Your task to perform on an android device: change keyboard looks Image 0: 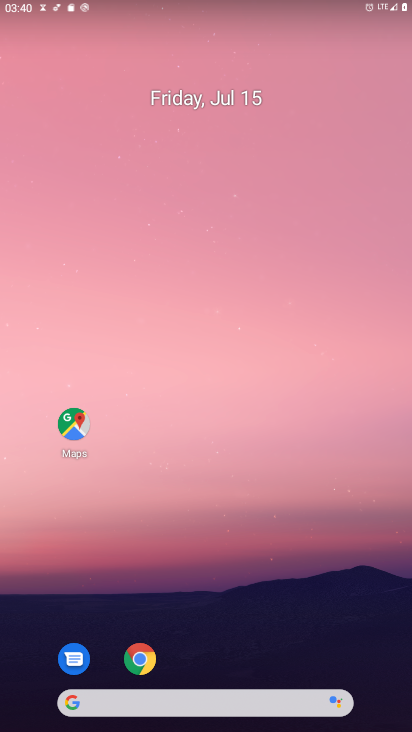
Step 0: drag from (273, 677) to (273, 324)
Your task to perform on an android device: change keyboard looks Image 1: 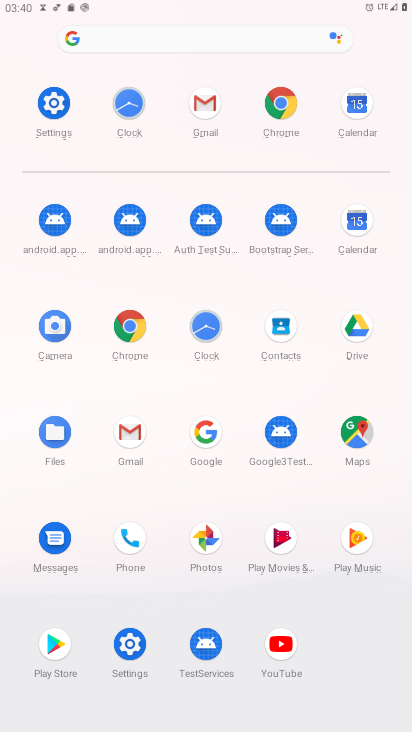
Step 1: click (48, 107)
Your task to perform on an android device: change keyboard looks Image 2: 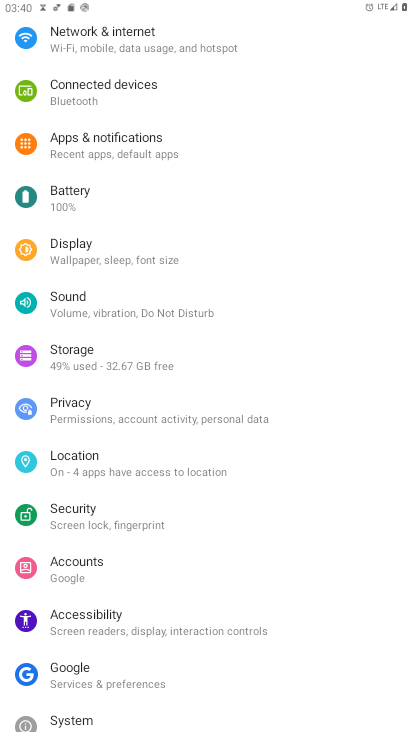
Step 2: drag from (165, 650) to (220, 341)
Your task to perform on an android device: change keyboard looks Image 3: 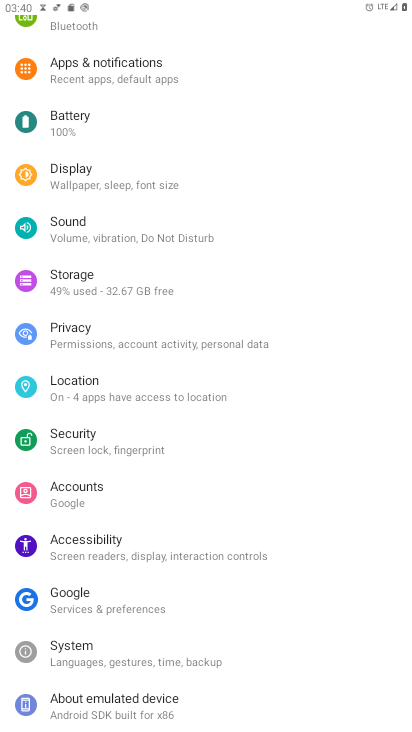
Step 3: click (148, 651)
Your task to perform on an android device: change keyboard looks Image 4: 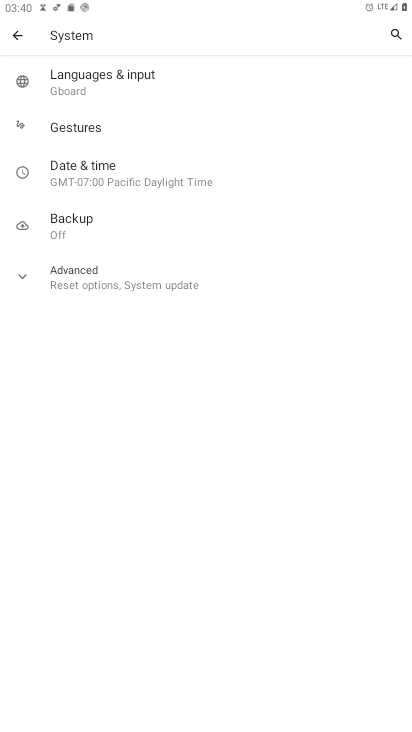
Step 4: click (96, 94)
Your task to perform on an android device: change keyboard looks Image 5: 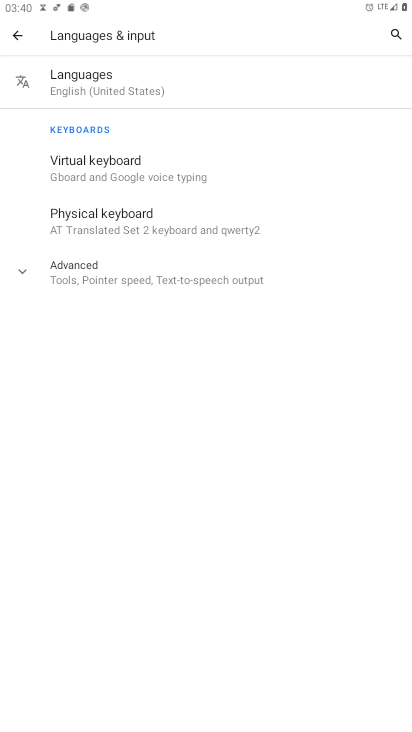
Step 5: click (100, 155)
Your task to perform on an android device: change keyboard looks Image 6: 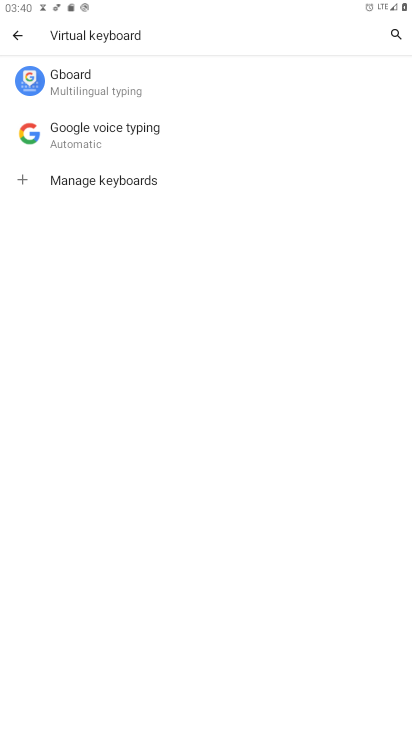
Step 6: click (100, 67)
Your task to perform on an android device: change keyboard looks Image 7: 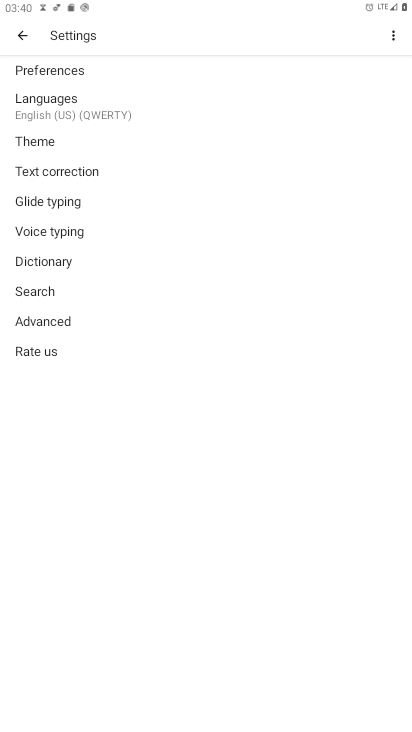
Step 7: click (72, 148)
Your task to perform on an android device: change keyboard looks Image 8: 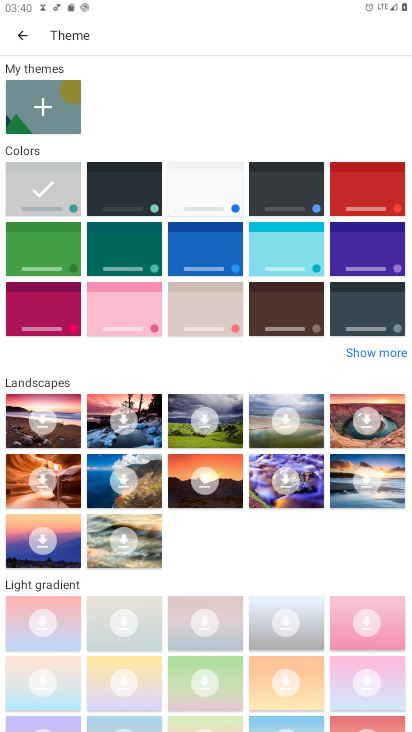
Step 8: click (298, 320)
Your task to perform on an android device: change keyboard looks Image 9: 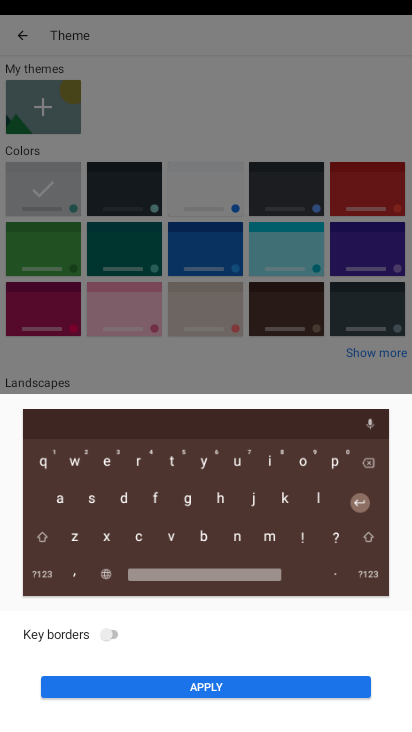
Step 9: click (264, 701)
Your task to perform on an android device: change keyboard looks Image 10: 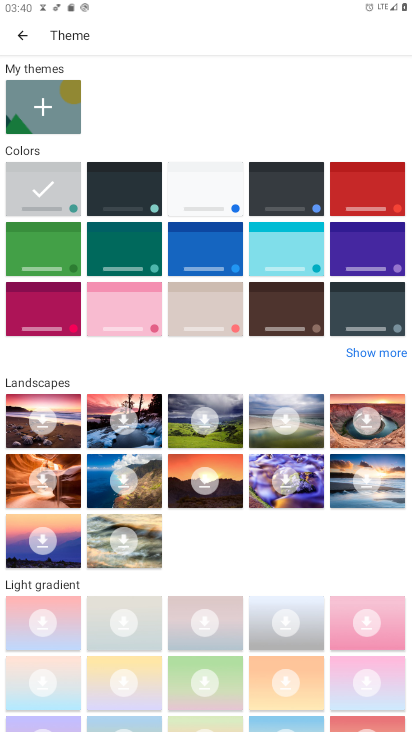
Step 10: click (272, 686)
Your task to perform on an android device: change keyboard looks Image 11: 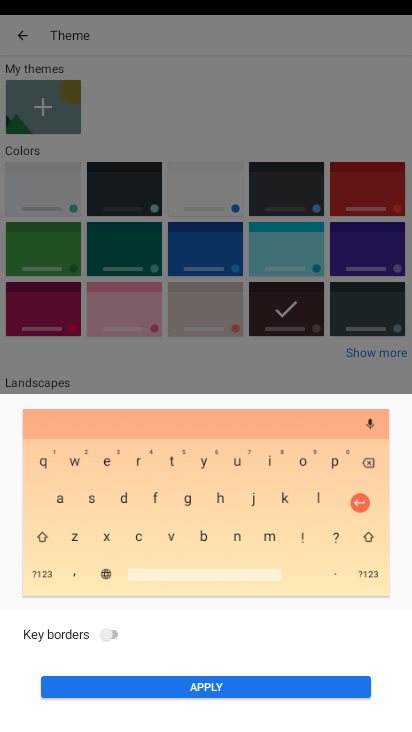
Step 11: click (270, 680)
Your task to perform on an android device: change keyboard looks Image 12: 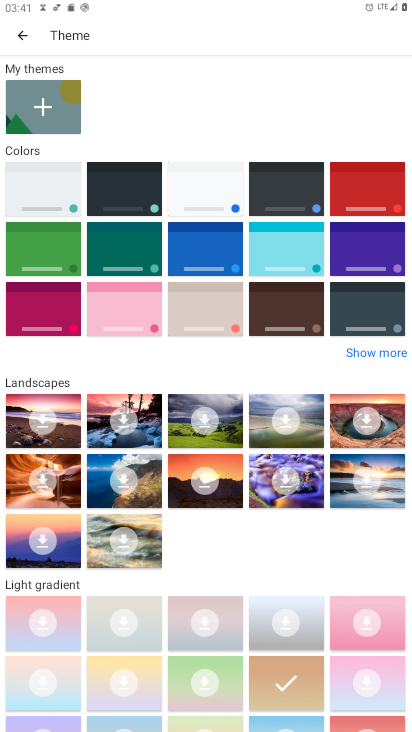
Step 12: task complete